Your task to perform on an android device: Open the calendar app, open the side menu, and click the "Day" option Image 0: 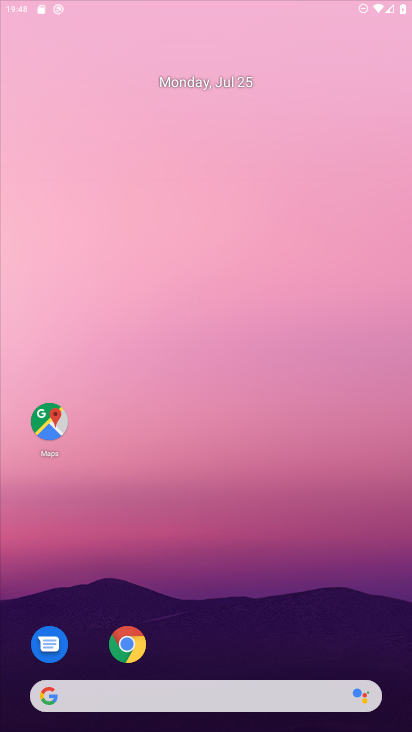
Step 0: press home button
Your task to perform on an android device: Open the calendar app, open the side menu, and click the "Day" option Image 1: 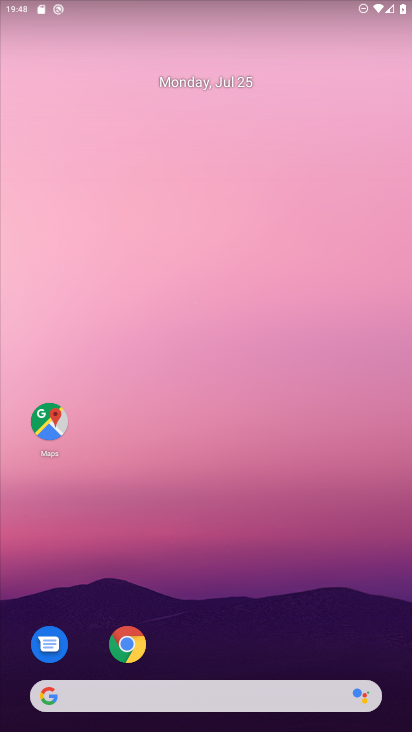
Step 1: drag from (226, 664) to (219, 53)
Your task to perform on an android device: Open the calendar app, open the side menu, and click the "Day" option Image 2: 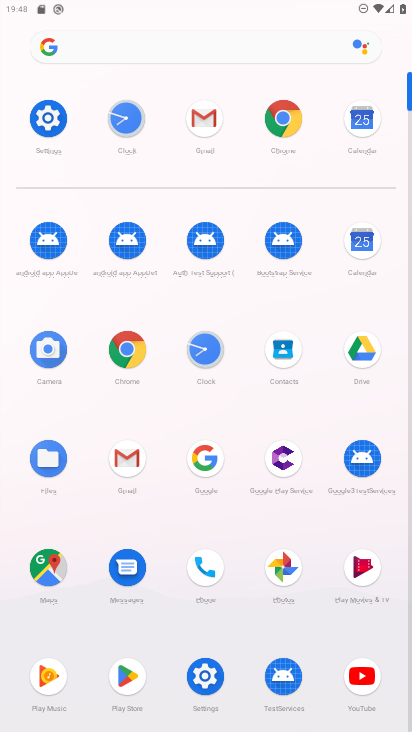
Step 2: click (359, 116)
Your task to perform on an android device: Open the calendar app, open the side menu, and click the "Day" option Image 3: 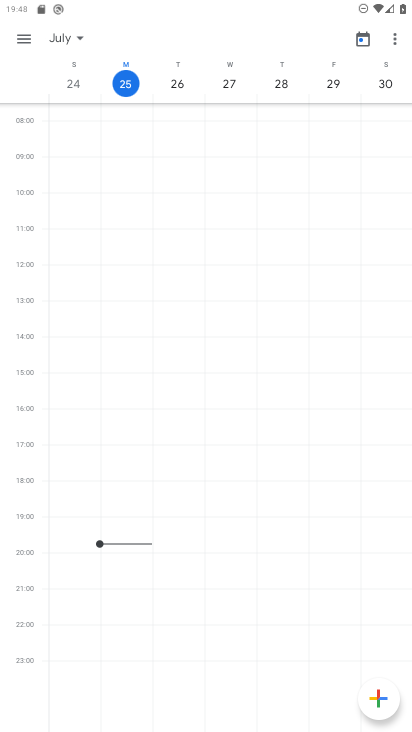
Step 3: click (16, 35)
Your task to perform on an android device: Open the calendar app, open the side menu, and click the "Day" option Image 4: 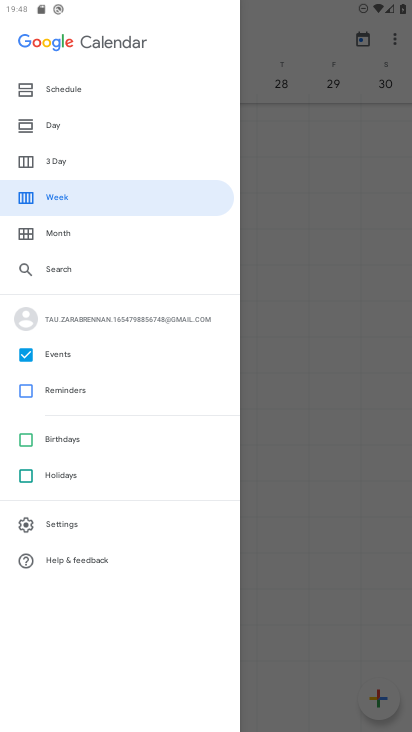
Step 4: click (40, 123)
Your task to perform on an android device: Open the calendar app, open the side menu, and click the "Day" option Image 5: 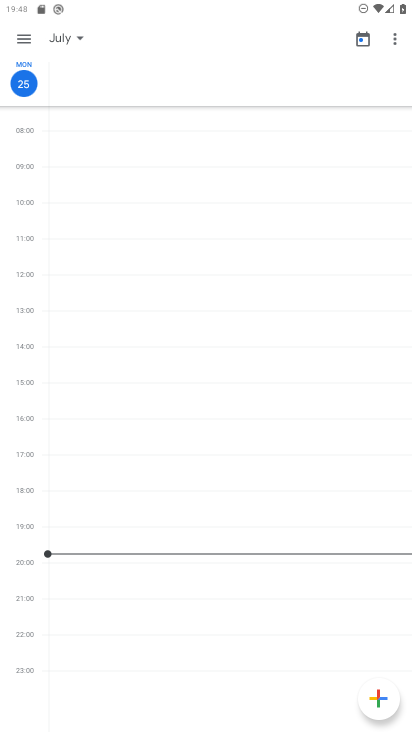
Step 5: task complete